Your task to perform on an android device: Open the map Image 0: 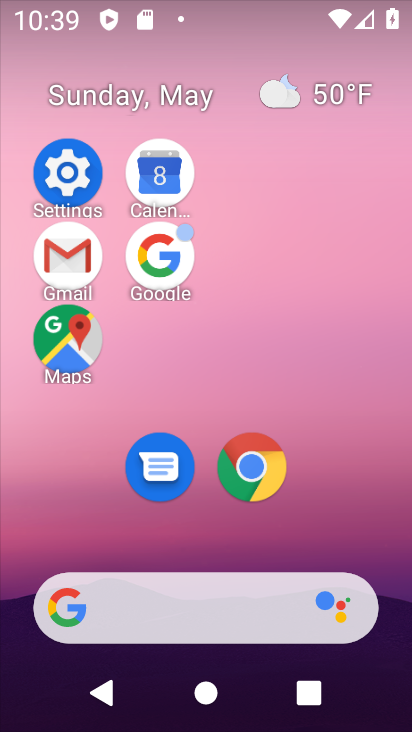
Step 0: click (59, 346)
Your task to perform on an android device: Open the map Image 1: 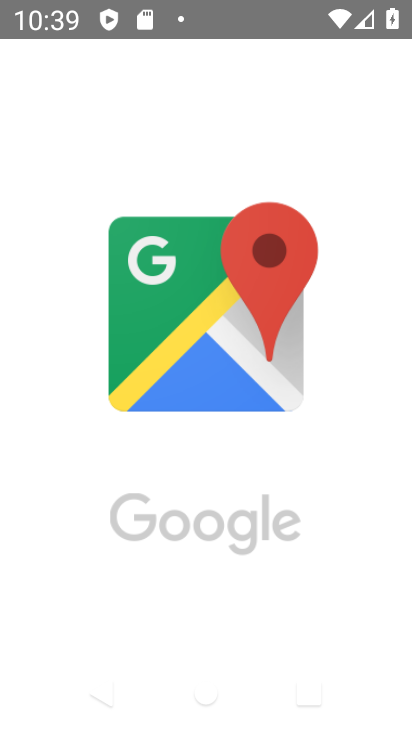
Step 1: task complete